Your task to perform on an android device: Open settings Image 0: 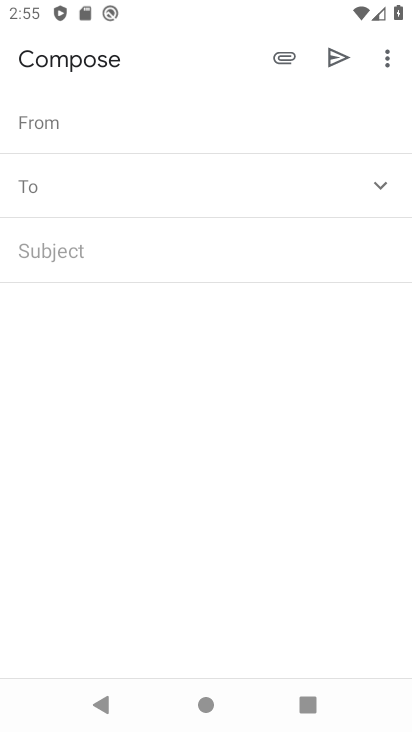
Step 0: drag from (129, 546) to (218, 296)
Your task to perform on an android device: Open settings Image 1: 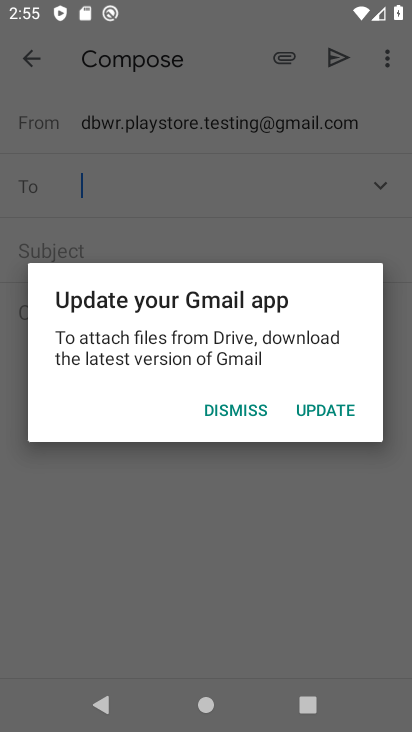
Step 1: press home button
Your task to perform on an android device: Open settings Image 2: 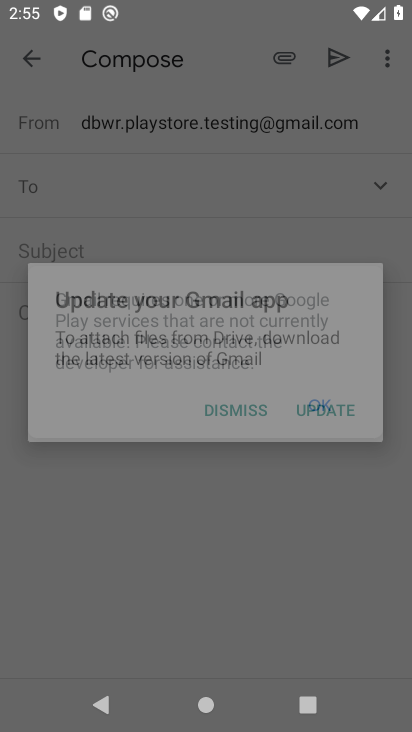
Step 2: press home button
Your task to perform on an android device: Open settings Image 3: 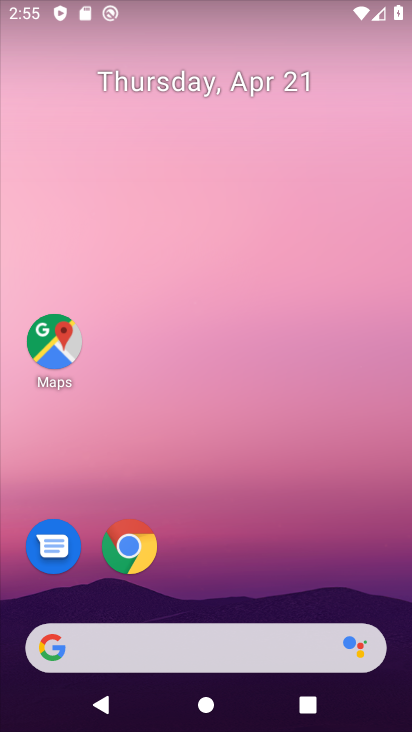
Step 3: drag from (223, 597) to (291, 74)
Your task to perform on an android device: Open settings Image 4: 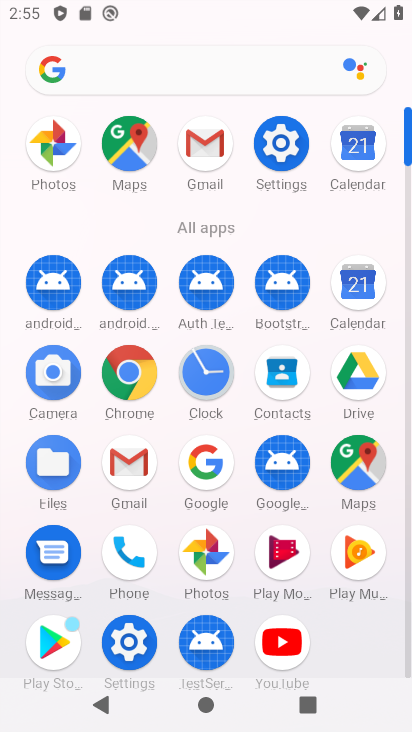
Step 4: click (287, 159)
Your task to perform on an android device: Open settings Image 5: 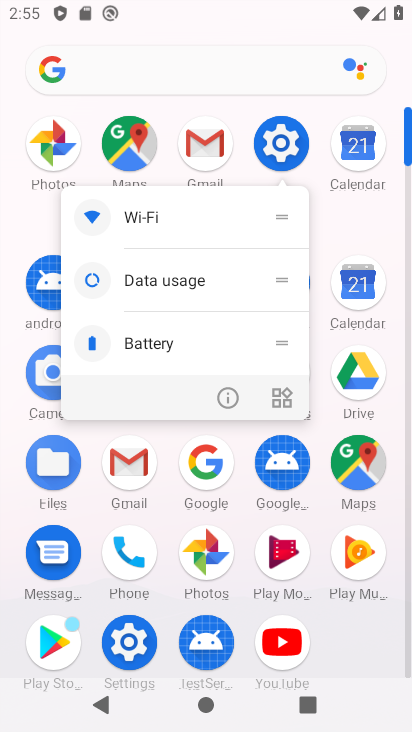
Step 5: click (288, 158)
Your task to perform on an android device: Open settings Image 6: 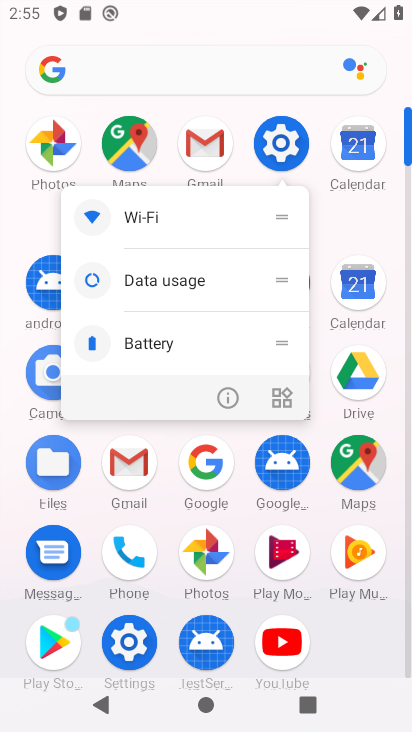
Step 6: click (288, 158)
Your task to perform on an android device: Open settings Image 7: 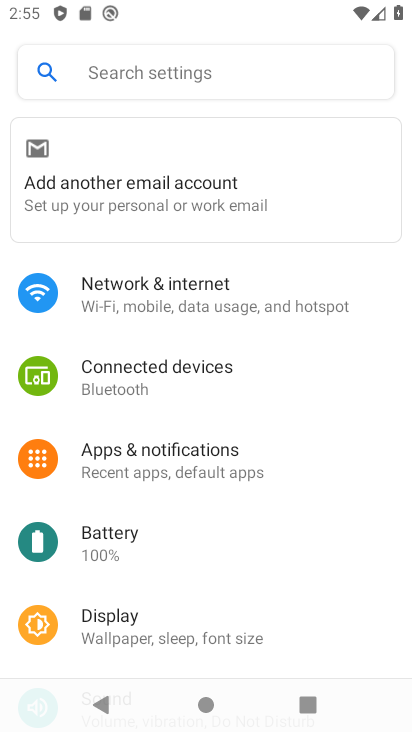
Step 7: task complete